Your task to perform on an android device: Search for the new Jordans on Nike.com Image 0: 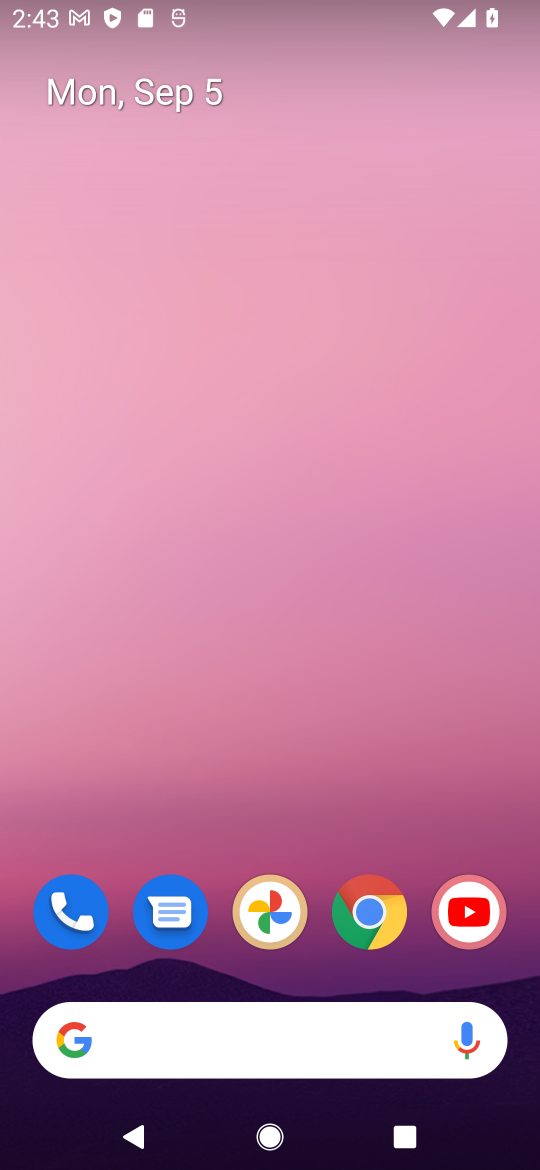
Step 0: click (366, 912)
Your task to perform on an android device: Search for the new Jordans on Nike.com Image 1: 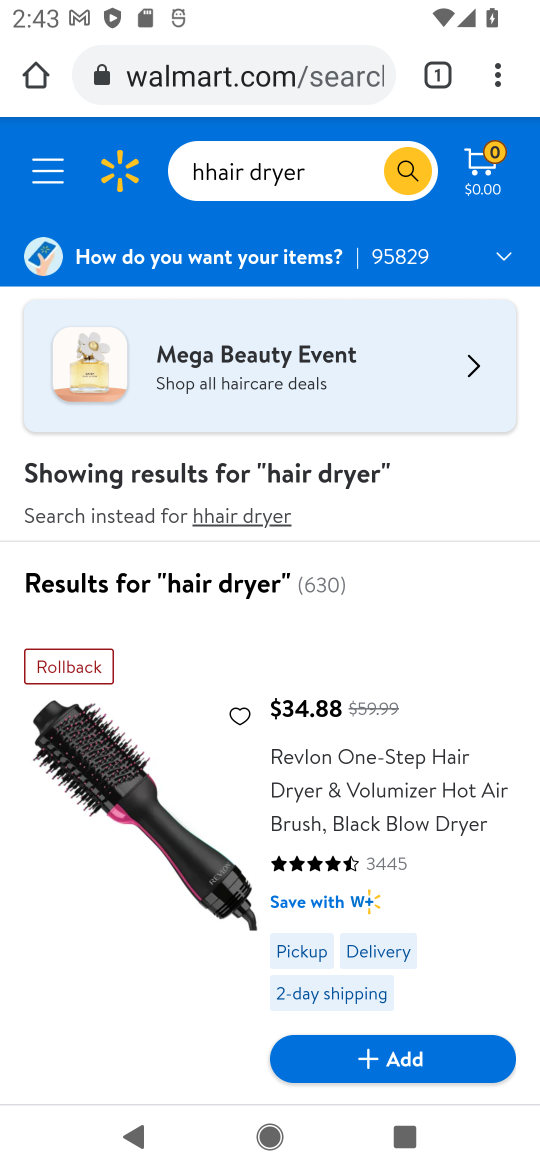
Step 1: click (293, 76)
Your task to perform on an android device: Search for the new Jordans on Nike.com Image 2: 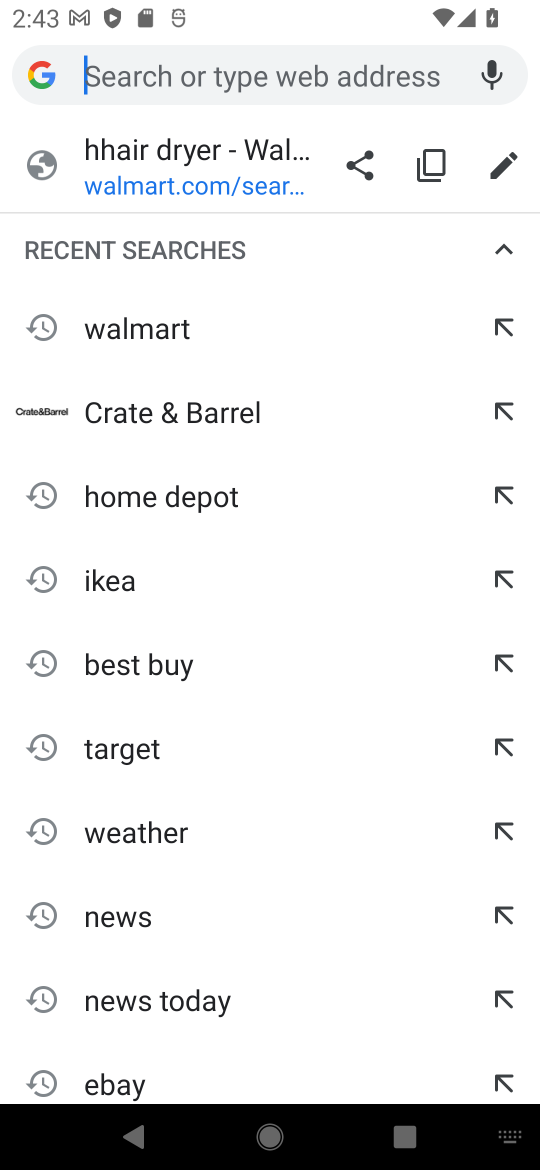
Step 2: type "nike.com"
Your task to perform on an android device: Search for the new Jordans on Nike.com Image 3: 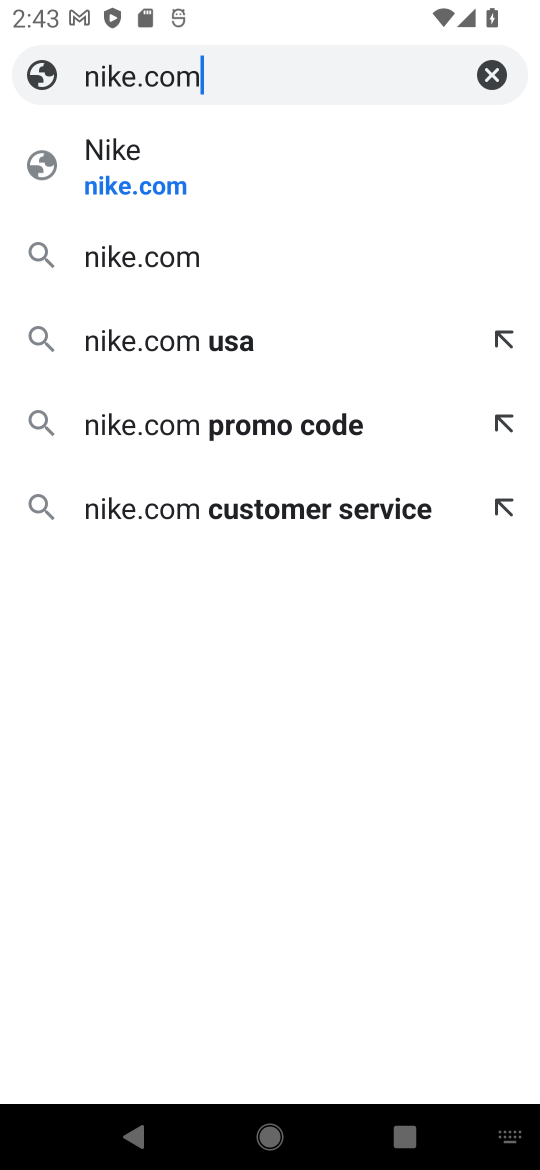
Step 3: click (319, 181)
Your task to perform on an android device: Search for the new Jordans on Nike.com Image 4: 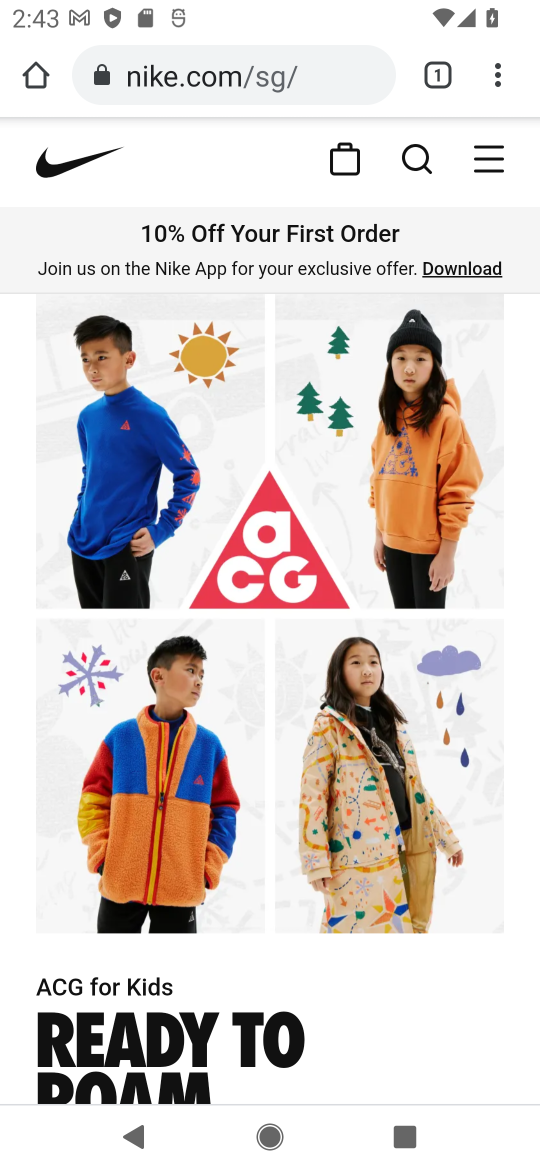
Step 4: click (392, 166)
Your task to perform on an android device: Search for the new Jordans on Nike.com Image 5: 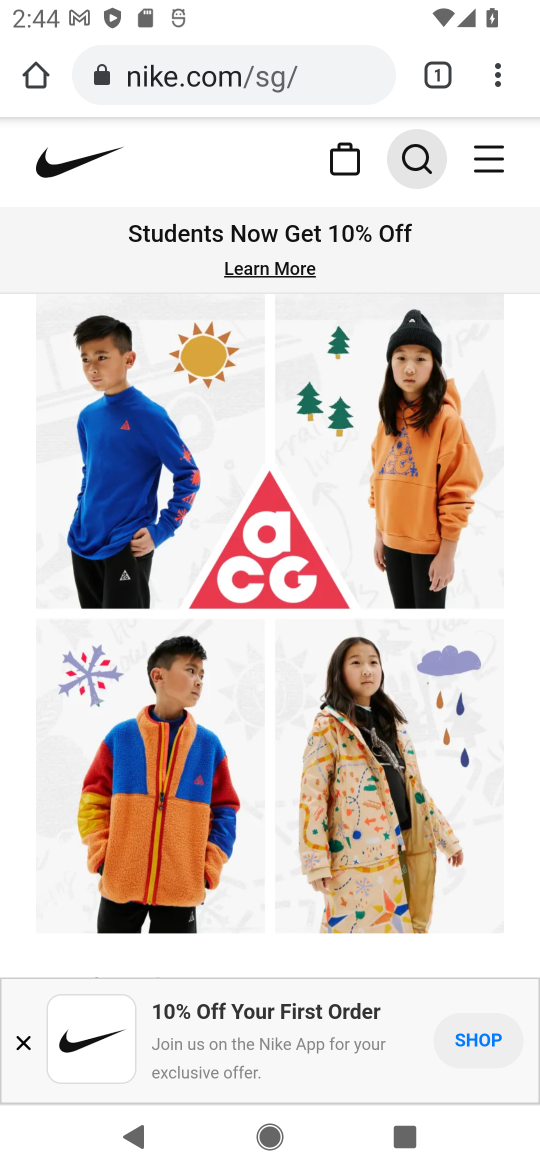
Step 5: click (415, 160)
Your task to perform on an android device: Search for the new Jordans on Nike.com Image 6: 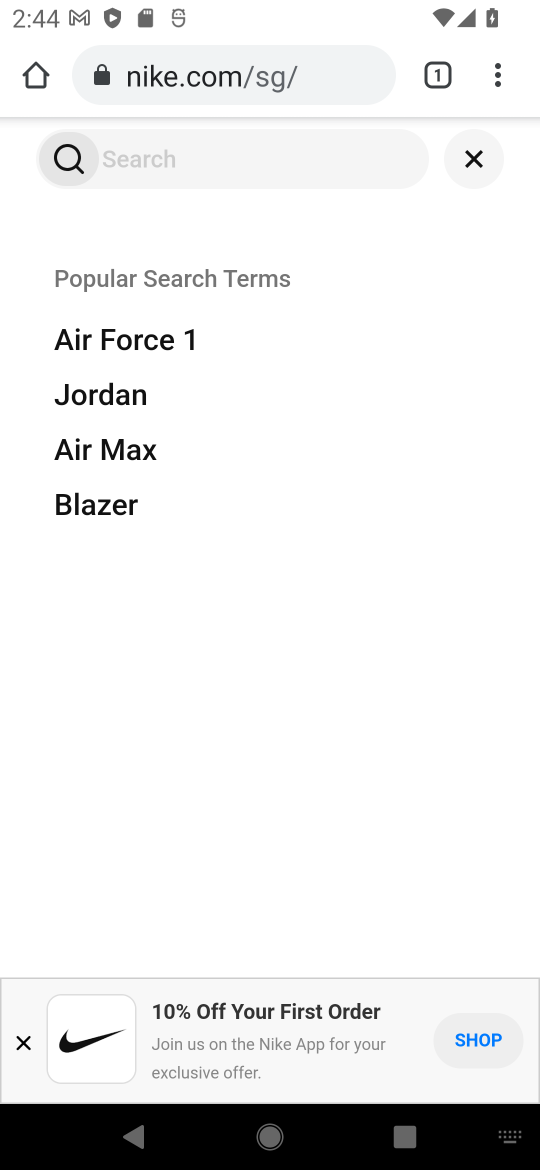
Step 6: type "new jordans"
Your task to perform on an android device: Search for the new Jordans on Nike.com Image 7: 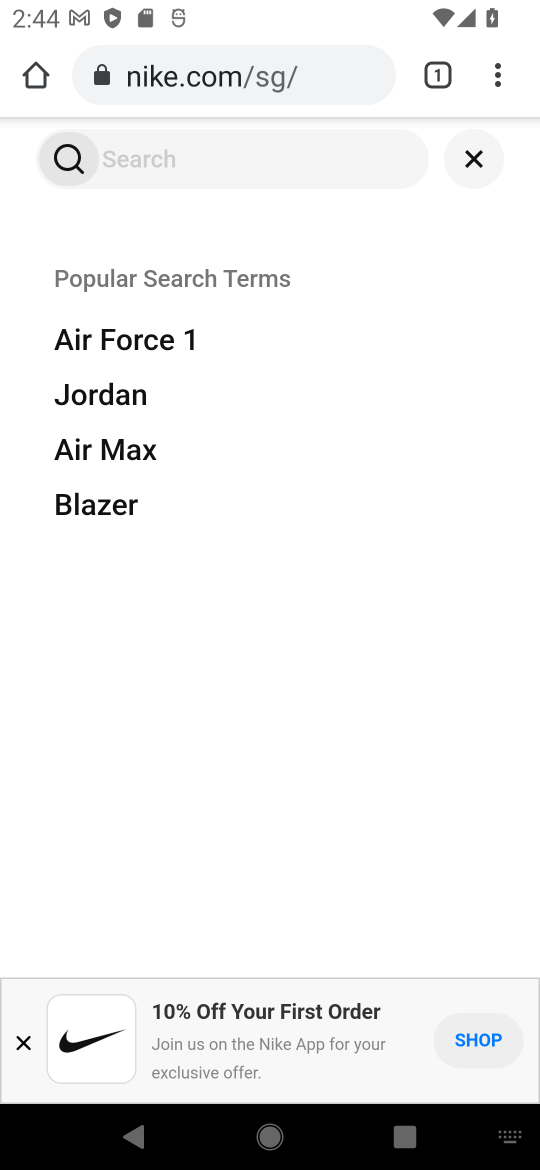
Step 7: type ""
Your task to perform on an android device: Search for the new Jordans on Nike.com Image 8: 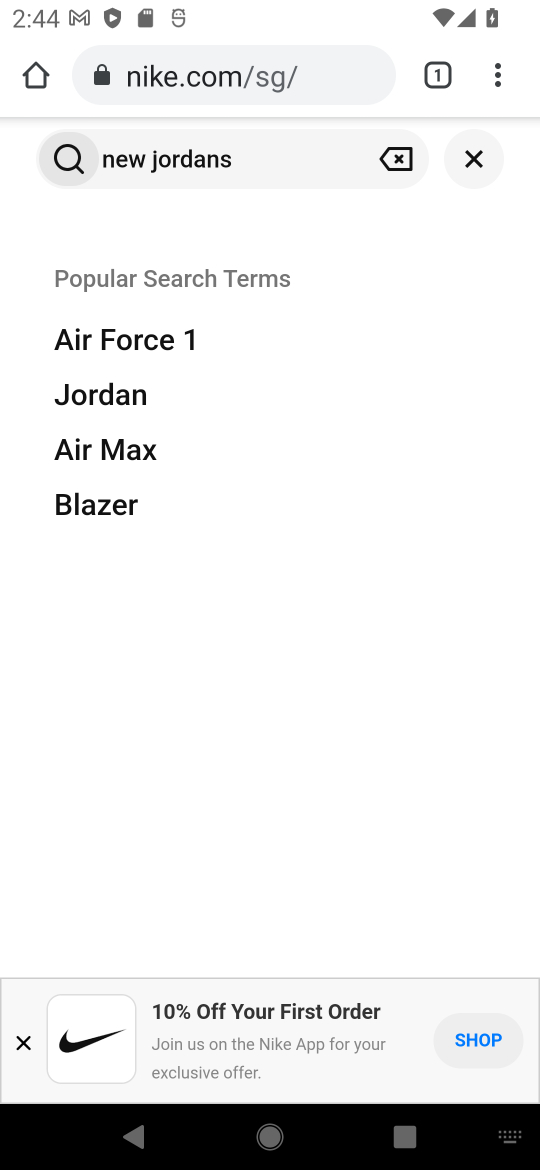
Step 8: press enter
Your task to perform on an android device: Search for the new Jordans on Nike.com Image 9: 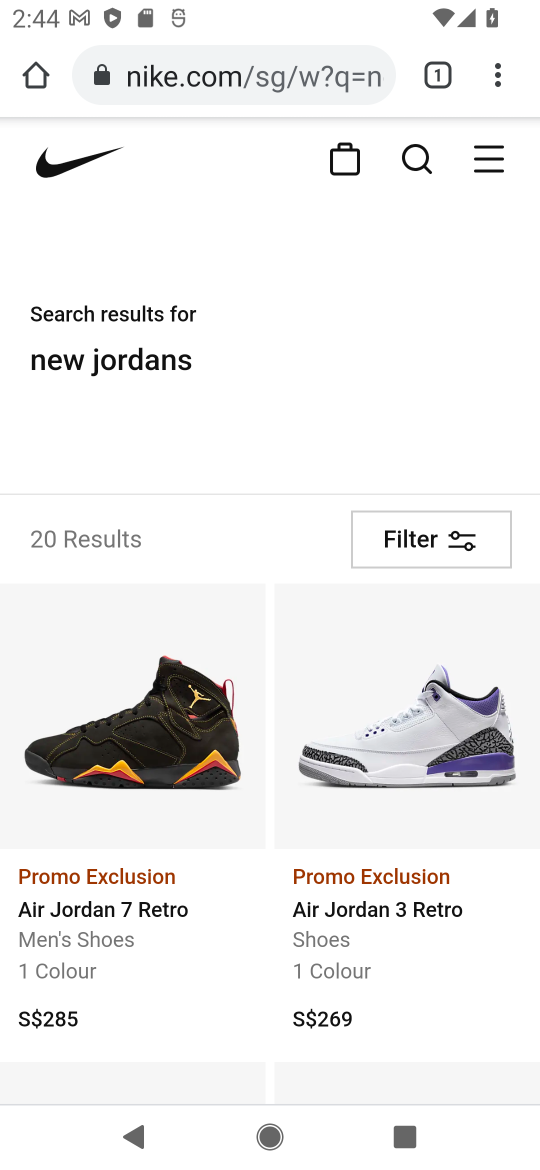
Step 9: drag from (385, 854) to (429, 769)
Your task to perform on an android device: Search for the new Jordans on Nike.com Image 10: 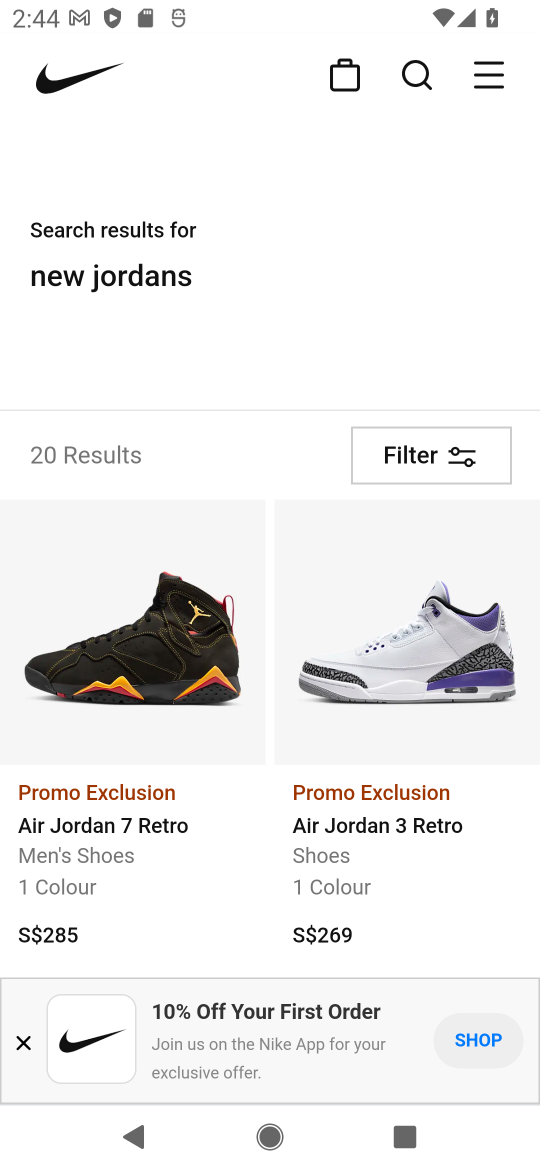
Step 10: click (440, 454)
Your task to perform on an android device: Search for the new Jordans on Nike.com Image 11: 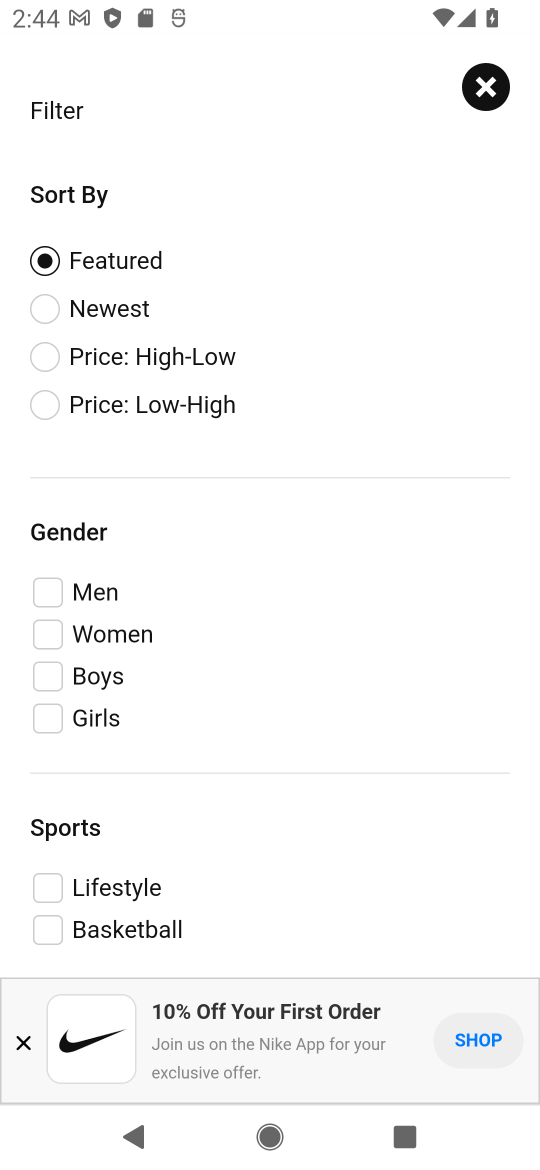
Step 11: click (123, 311)
Your task to perform on an android device: Search for the new Jordans on Nike.com Image 12: 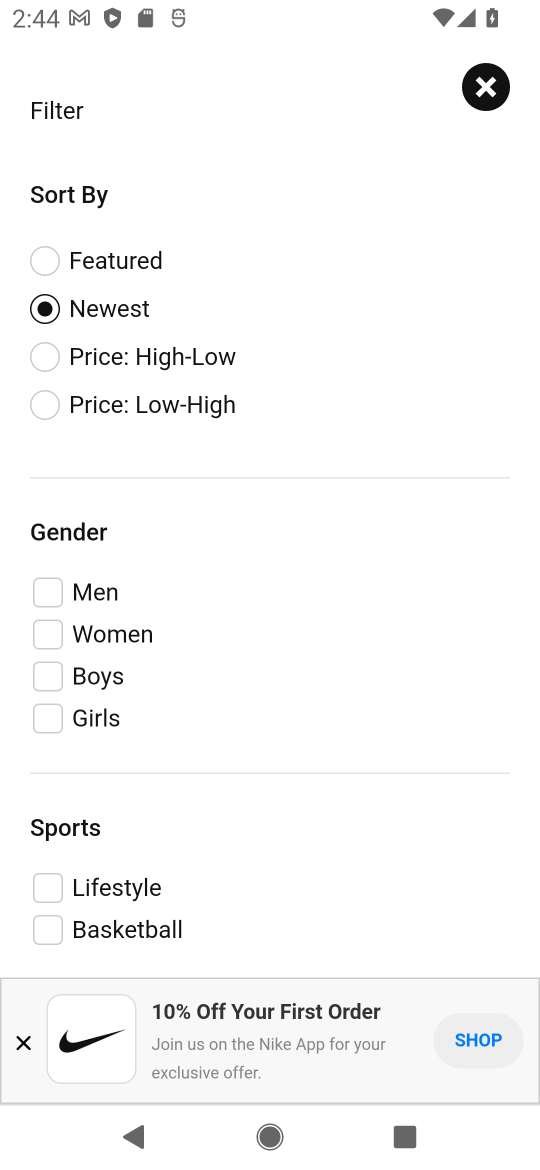
Step 12: drag from (324, 909) to (326, 758)
Your task to perform on an android device: Search for the new Jordans on Nike.com Image 13: 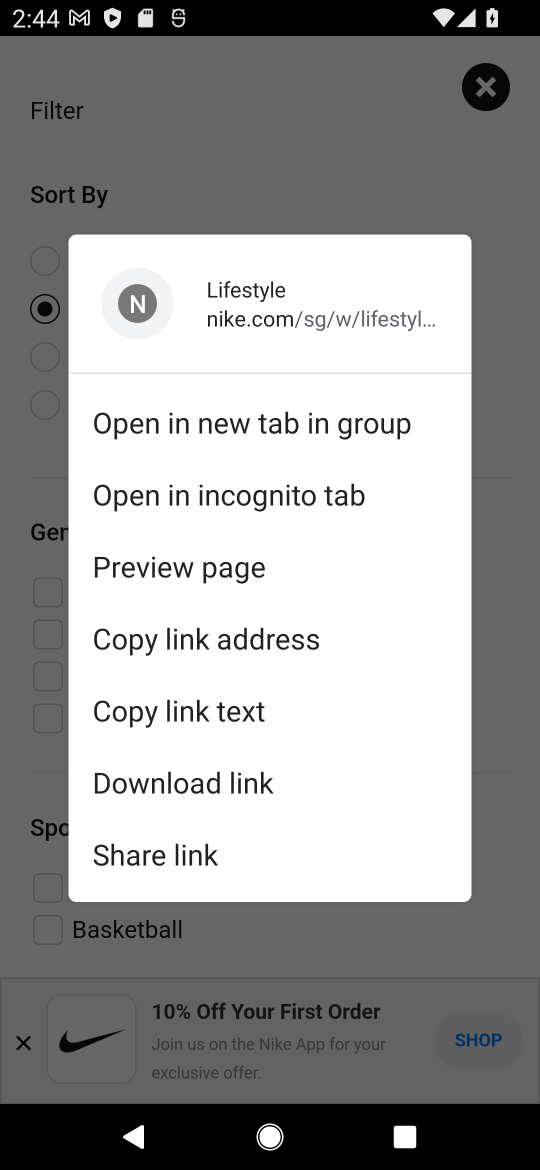
Step 13: click (496, 790)
Your task to perform on an android device: Search for the new Jordans on Nike.com Image 14: 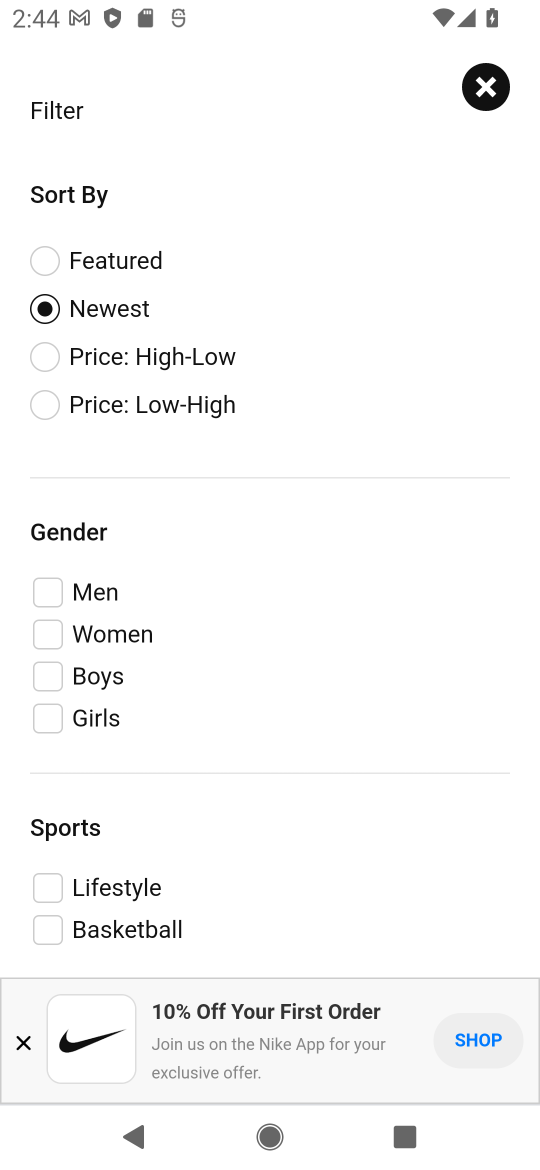
Step 14: click (21, 1041)
Your task to perform on an android device: Search for the new Jordans on Nike.com Image 15: 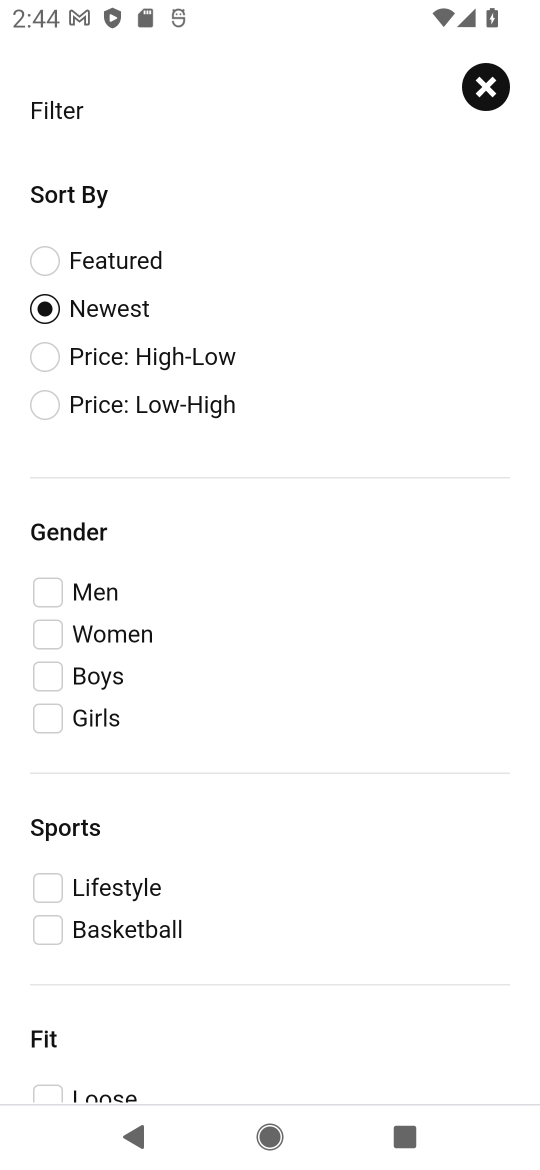
Step 15: click (105, 298)
Your task to perform on an android device: Search for the new Jordans on Nike.com Image 16: 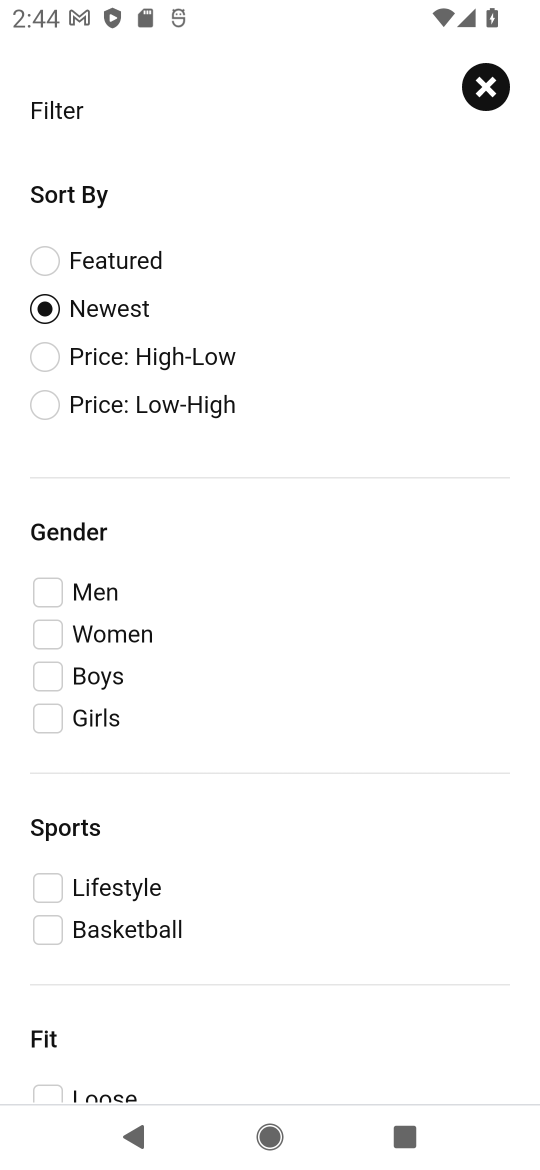
Step 16: click (278, 1032)
Your task to perform on an android device: Search for the new Jordans on Nike.com Image 17: 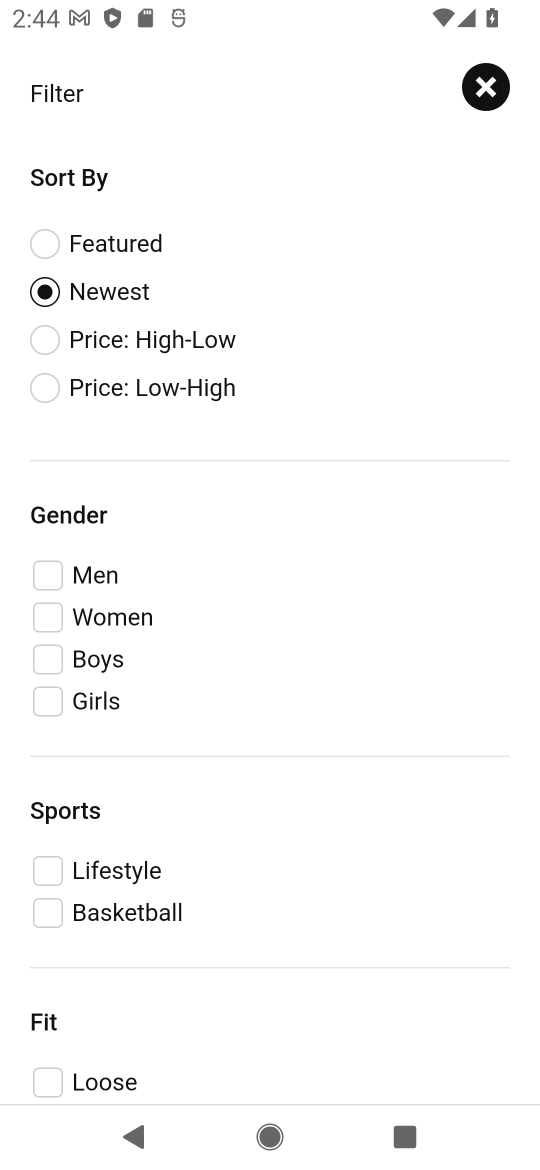
Step 17: click (476, 94)
Your task to perform on an android device: Search for the new Jordans on Nike.com Image 18: 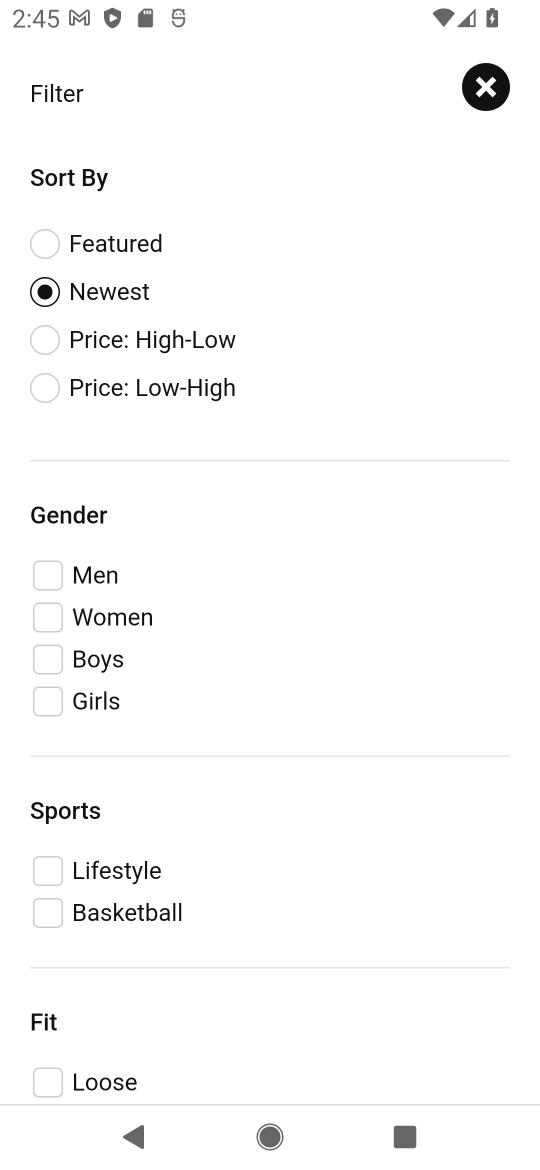
Step 18: click (484, 92)
Your task to perform on an android device: Search for the new Jordans on Nike.com Image 19: 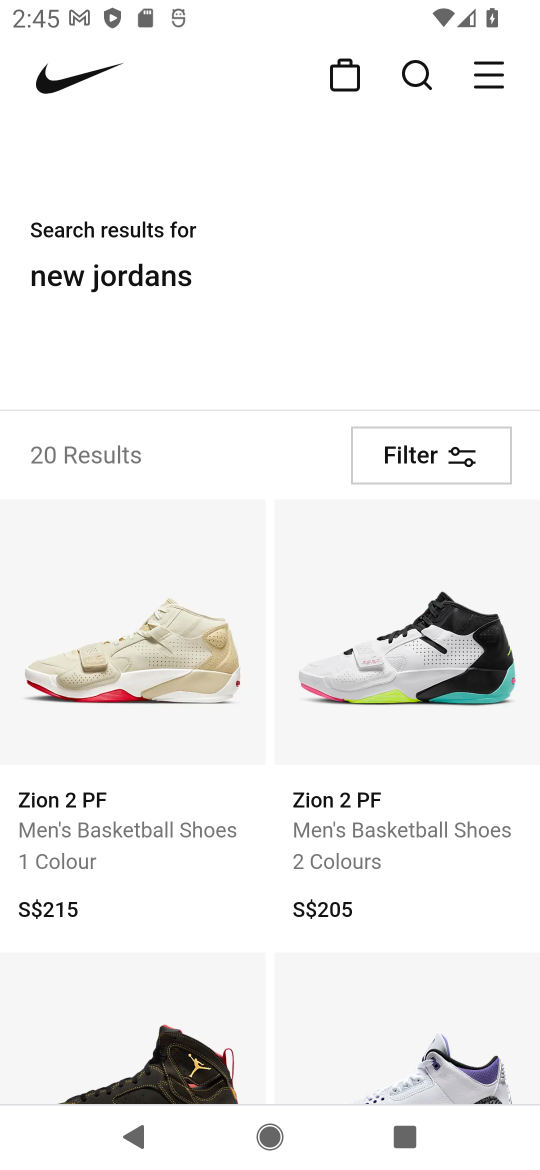
Step 19: task complete